Your task to perform on an android device: Show me recent news Image 0: 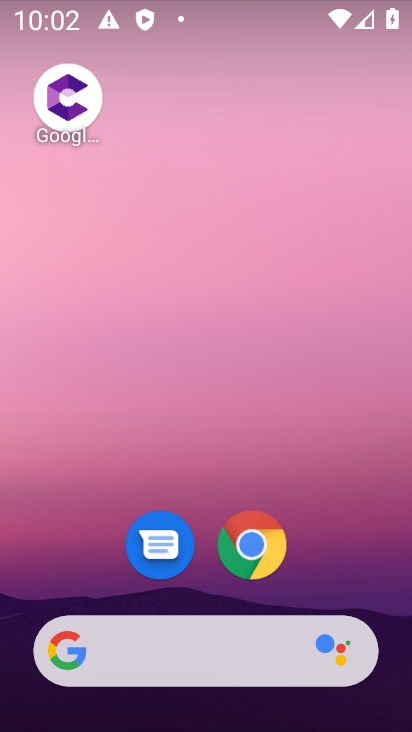
Step 0: click (279, 664)
Your task to perform on an android device: Show me recent news Image 1: 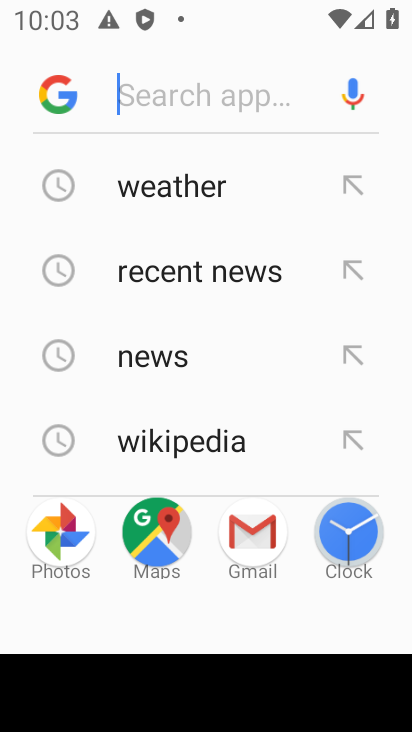
Step 1: type "recent news"
Your task to perform on an android device: Show me recent news Image 2: 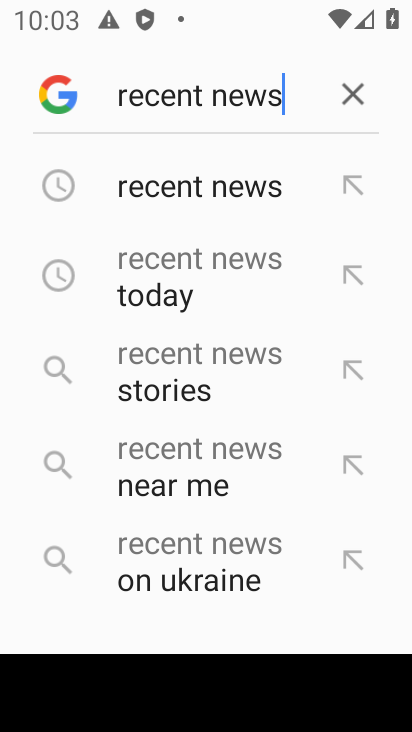
Step 2: click (258, 179)
Your task to perform on an android device: Show me recent news Image 3: 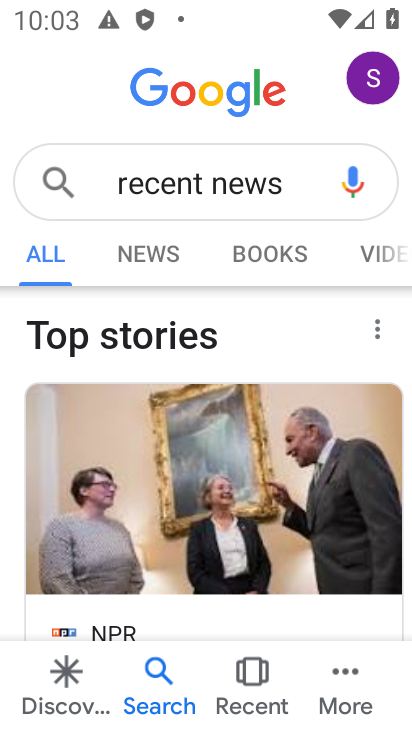
Step 3: click (154, 250)
Your task to perform on an android device: Show me recent news Image 4: 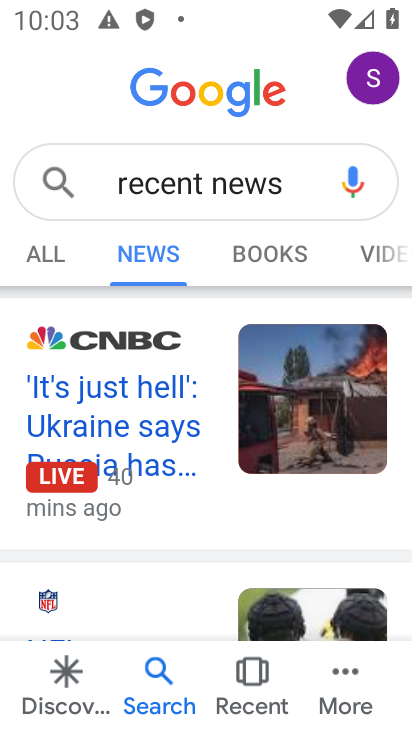
Step 4: task complete